Your task to perform on an android device: add a label to a message in the gmail app Image 0: 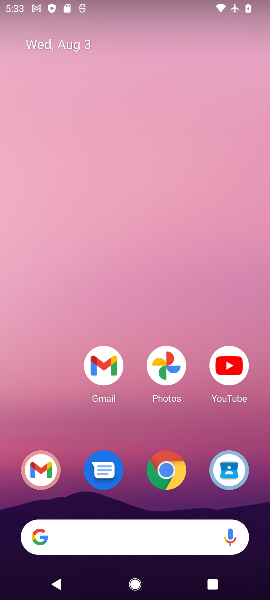
Step 0: drag from (191, 420) to (193, 95)
Your task to perform on an android device: add a label to a message in the gmail app Image 1: 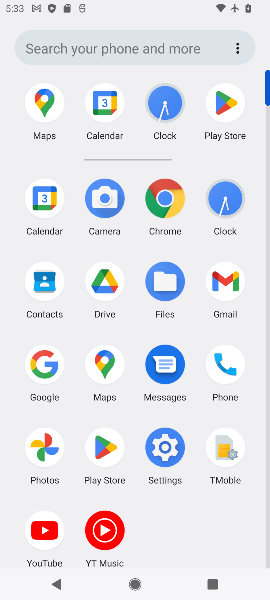
Step 1: click (226, 288)
Your task to perform on an android device: add a label to a message in the gmail app Image 2: 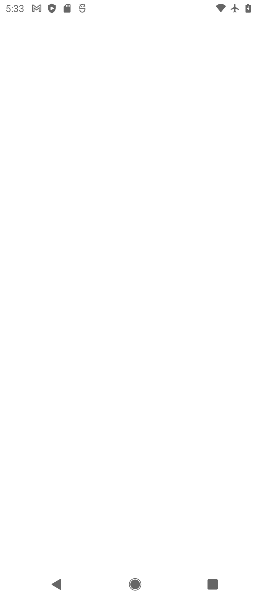
Step 2: task complete